Your task to perform on an android device: change the clock display to analog Image 0: 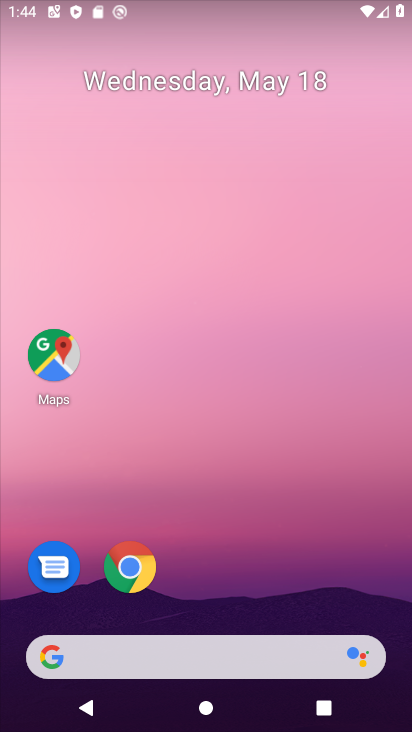
Step 0: drag from (240, 570) to (259, 135)
Your task to perform on an android device: change the clock display to analog Image 1: 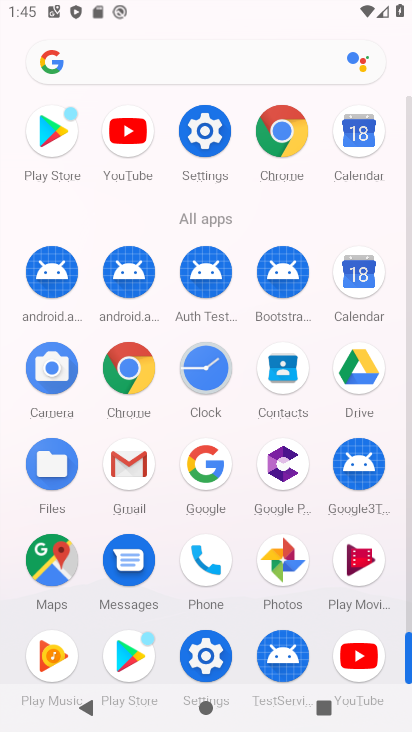
Step 1: click (200, 380)
Your task to perform on an android device: change the clock display to analog Image 2: 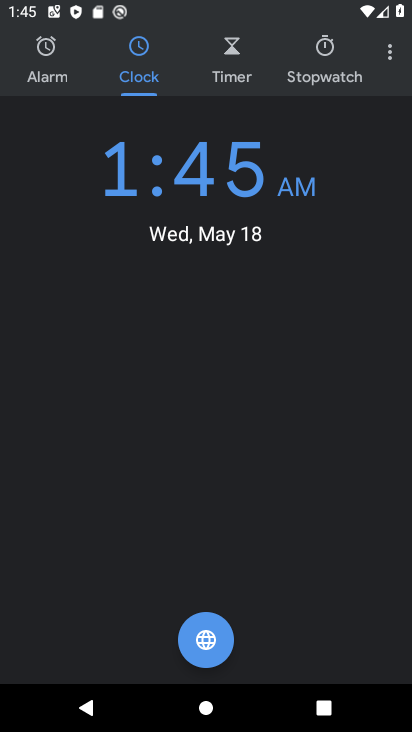
Step 2: click (393, 45)
Your task to perform on an android device: change the clock display to analog Image 3: 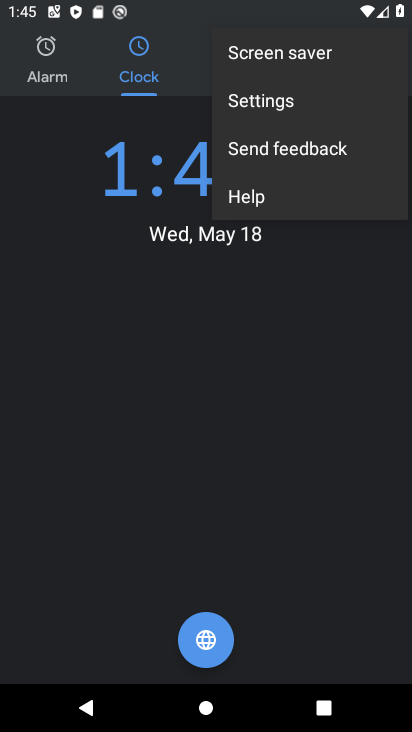
Step 3: click (291, 110)
Your task to perform on an android device: change the clock display to analog Image 4: 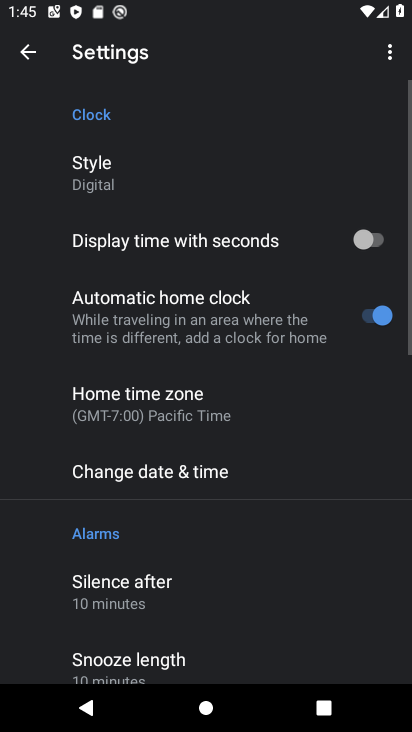
Step 4: click (109, 172)
Your task to perform on an android device: change the clock display to analog Image 5: 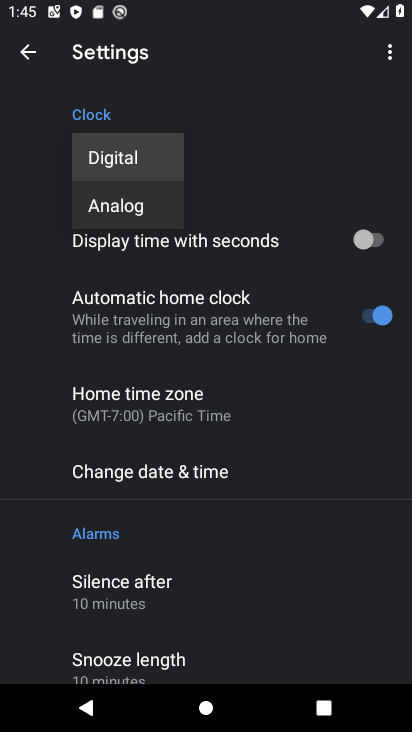
Step 5: click (135, 201)
Your task to perform on an android device: change the clock display to analog Image 6: 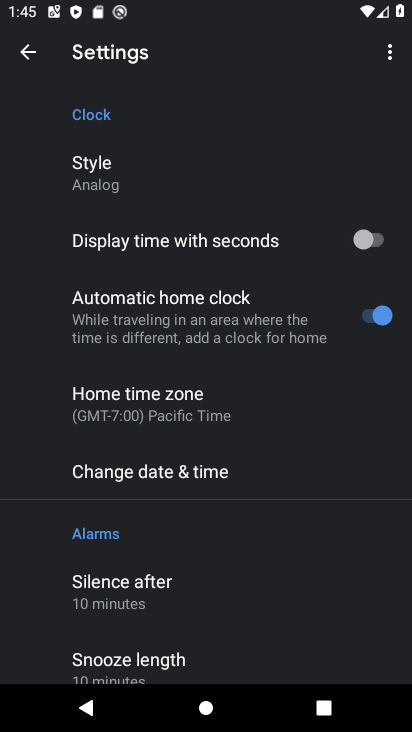
Step 6: task complete